Your task to perform on an android device: read, delete, or share a saved page in the chrome app Image 0: 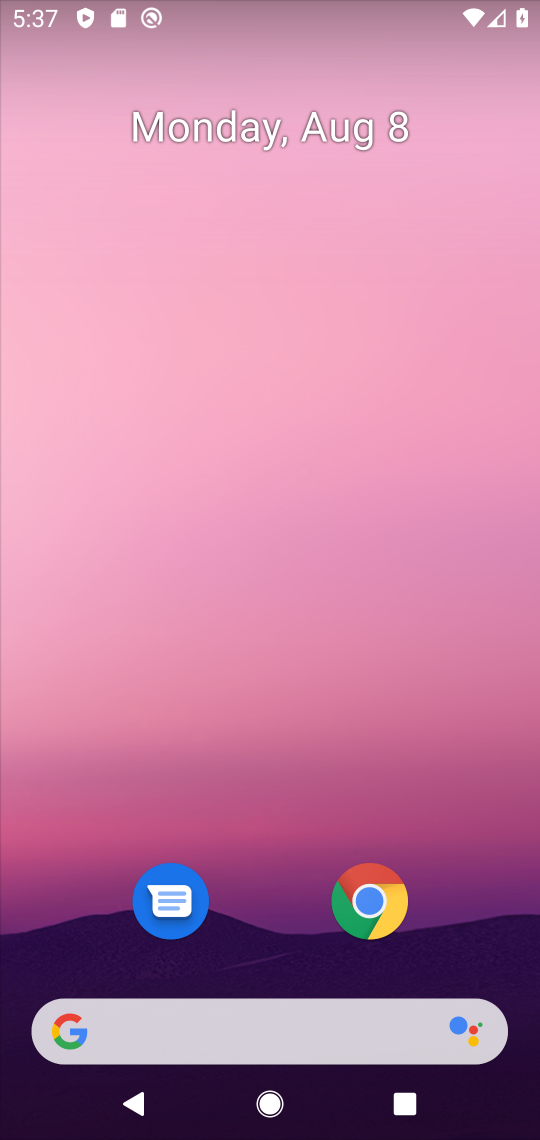
Step 0: click (382, 904)
Your task to perform on an android device: read, delete, or share a saved page in the chrome app Image 1: 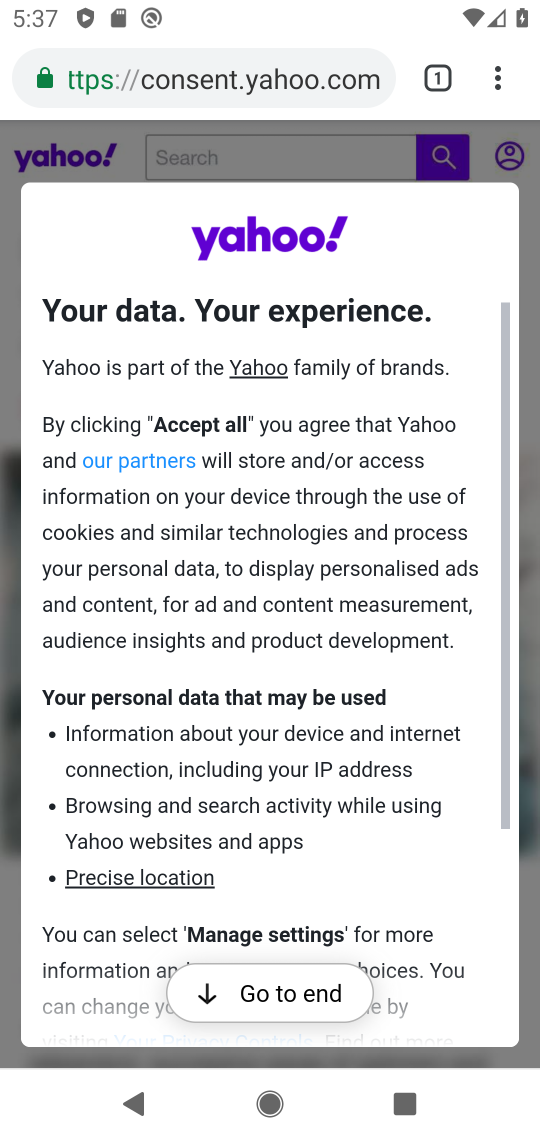
Step 1: click (510, 68)
Your task to perform on an android device: read, delete, or share a saved page in the chrome app Image 2: 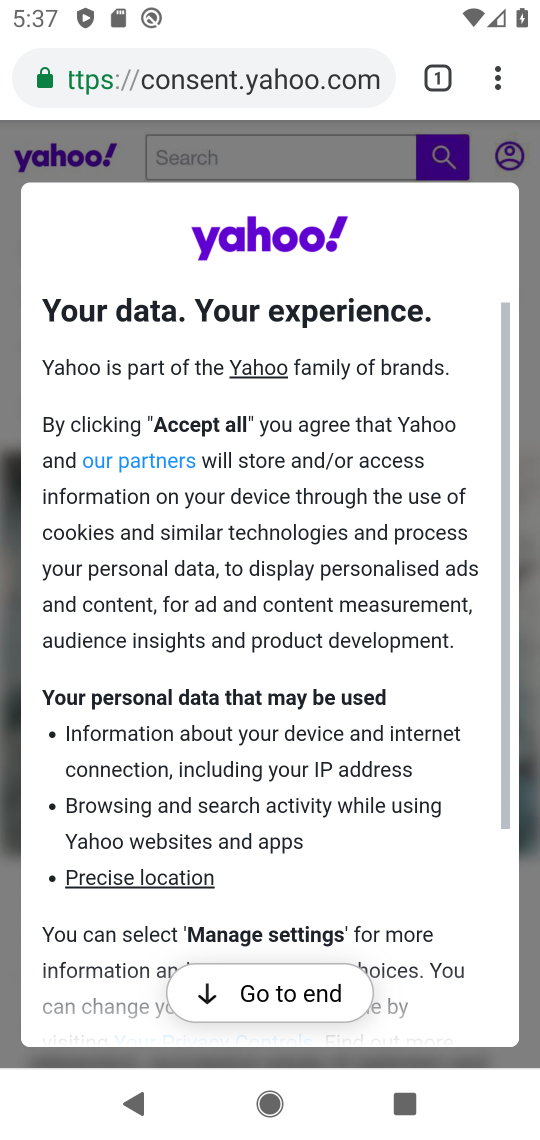
Step 2: click (502, 68)
Your task to perform on an android device: read, delete, or share a saved page in the chrome app Image 3: 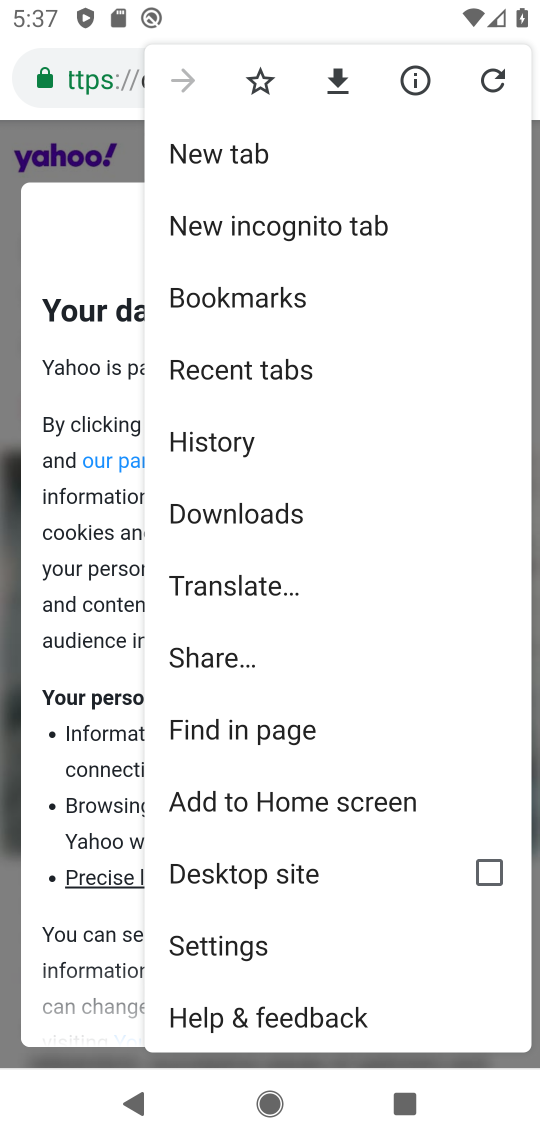
Step 3: click (299, 509)
Your task to perform on an android device: read, delete, or share a saved page in the chrome app Image 4: 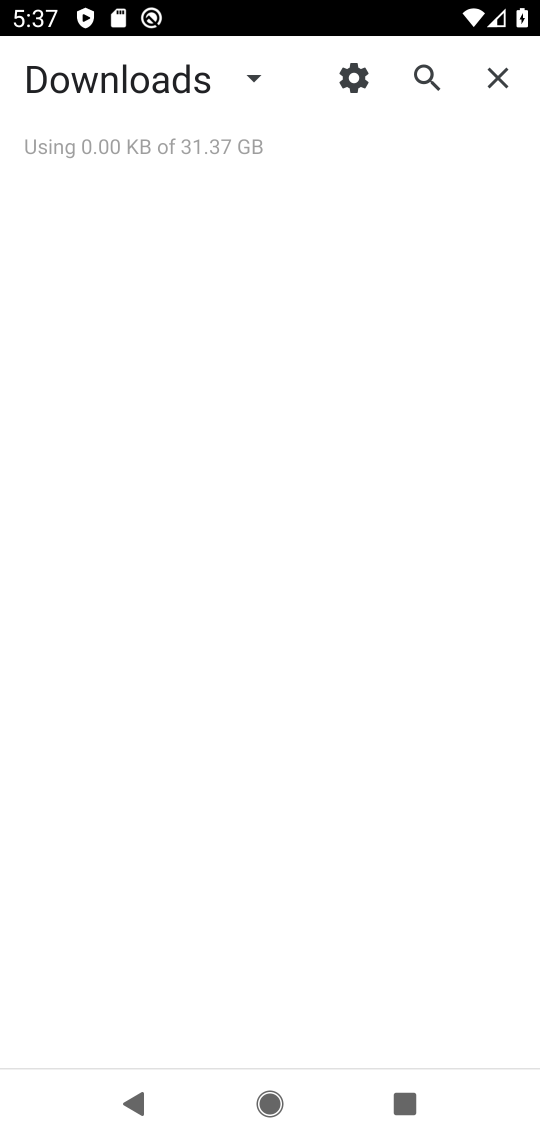
Step 4: click (244, 75)
Your task to perform on an android device: read, delete, or share a saved page in the chrome app Image 5: 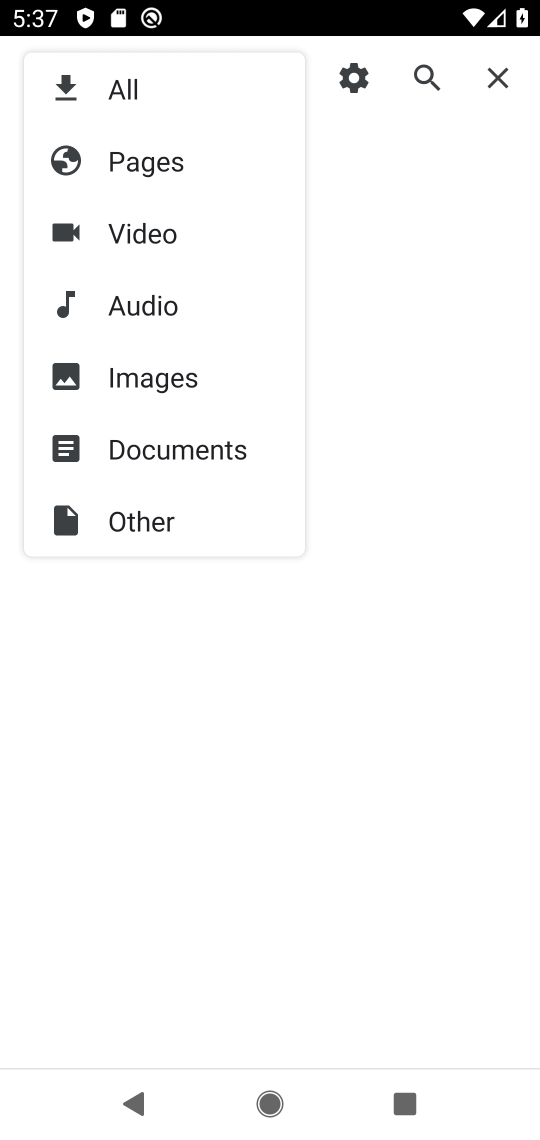
Step 5: click (192, 173)
Your task to perform on an android device: read, delete, or share a saved page in the chrome app Image 6: 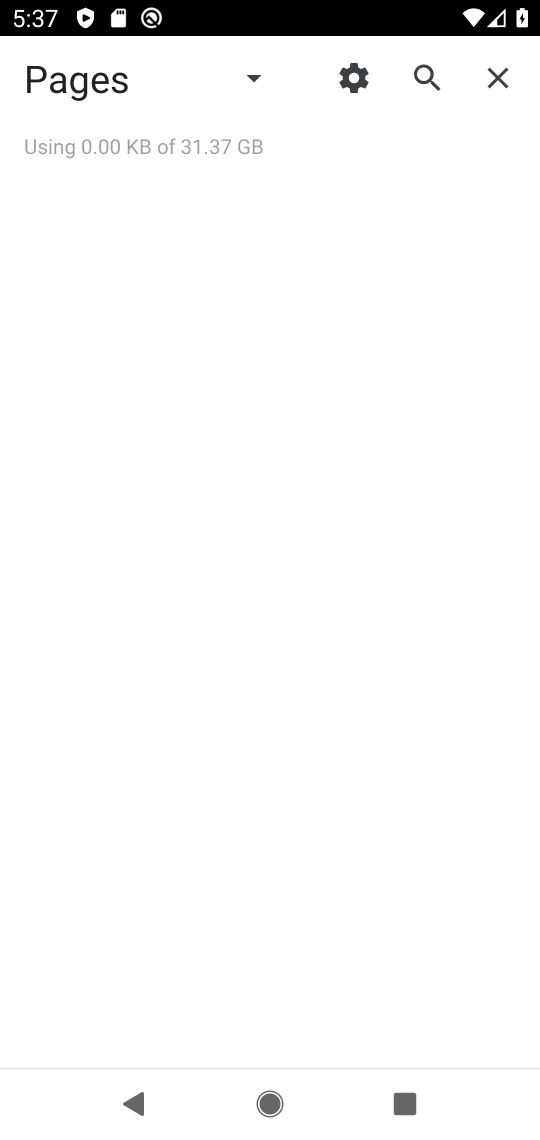
Step 6: task complete